Your task to perform on an android device: Clear all items from cart on walmart. Add "macbook air" to the cart on walmart Image 0: 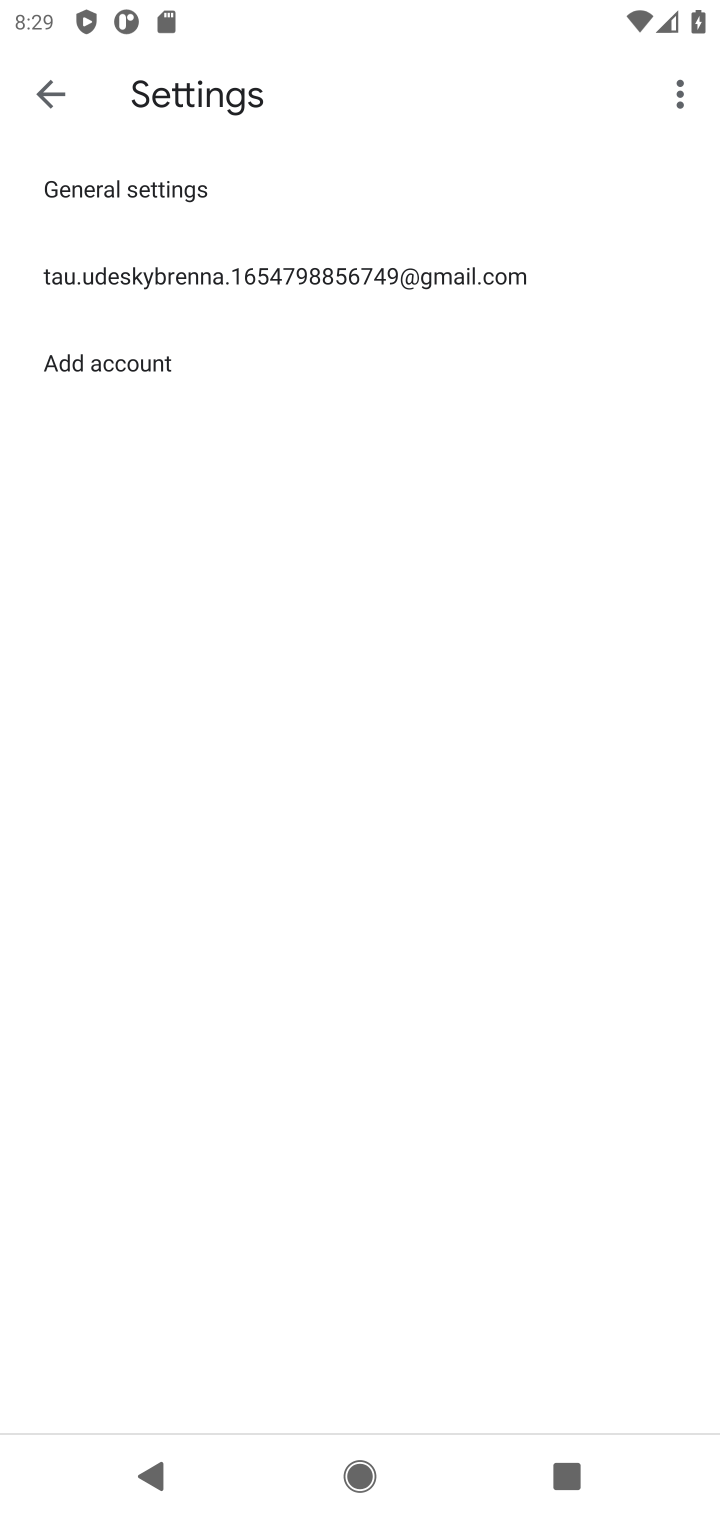
Step 0: press home button
Your task to perform on an android device: Clear all items from cart on walmart. Add "macbook air" to the cart on walmart Image 1: 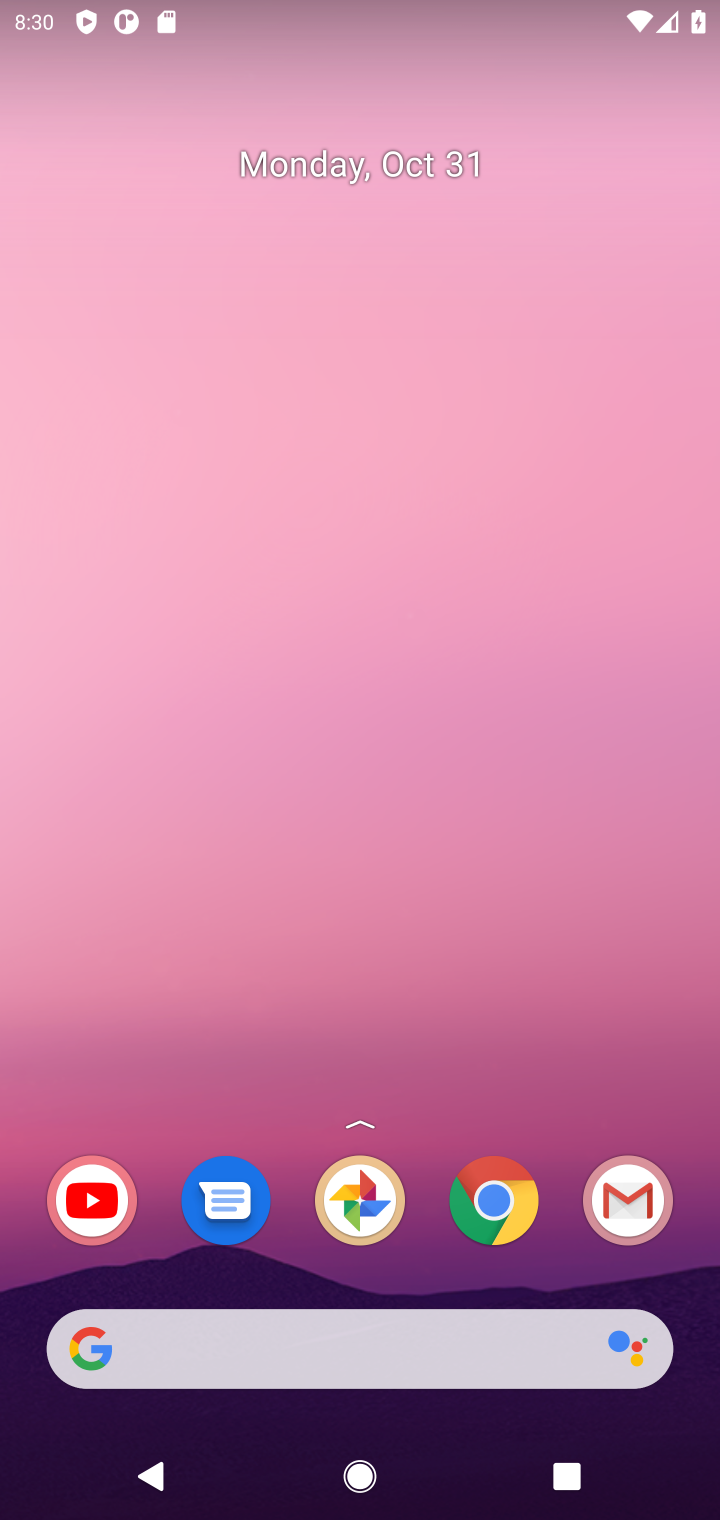
Step 1: click (484, 1201)
Your task to perform on an android device: Clear all items from cart on walmart. Add "macbook air" to the cart on walmart Image 2: 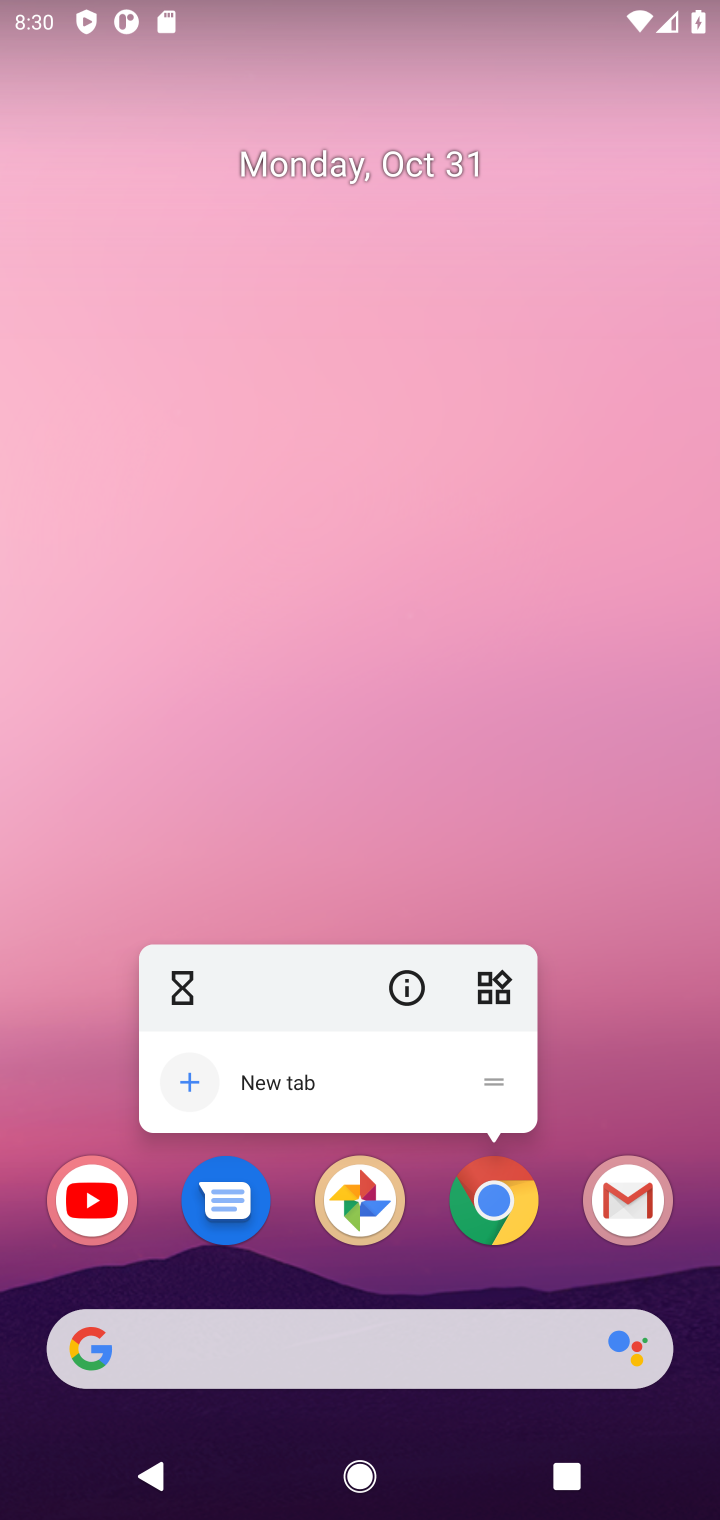
Step 2: click (616, 634)
Your task to perform on an android device: Clear all items from cart on walmart. Add "macbook air" to the cart on walmart Image 3: 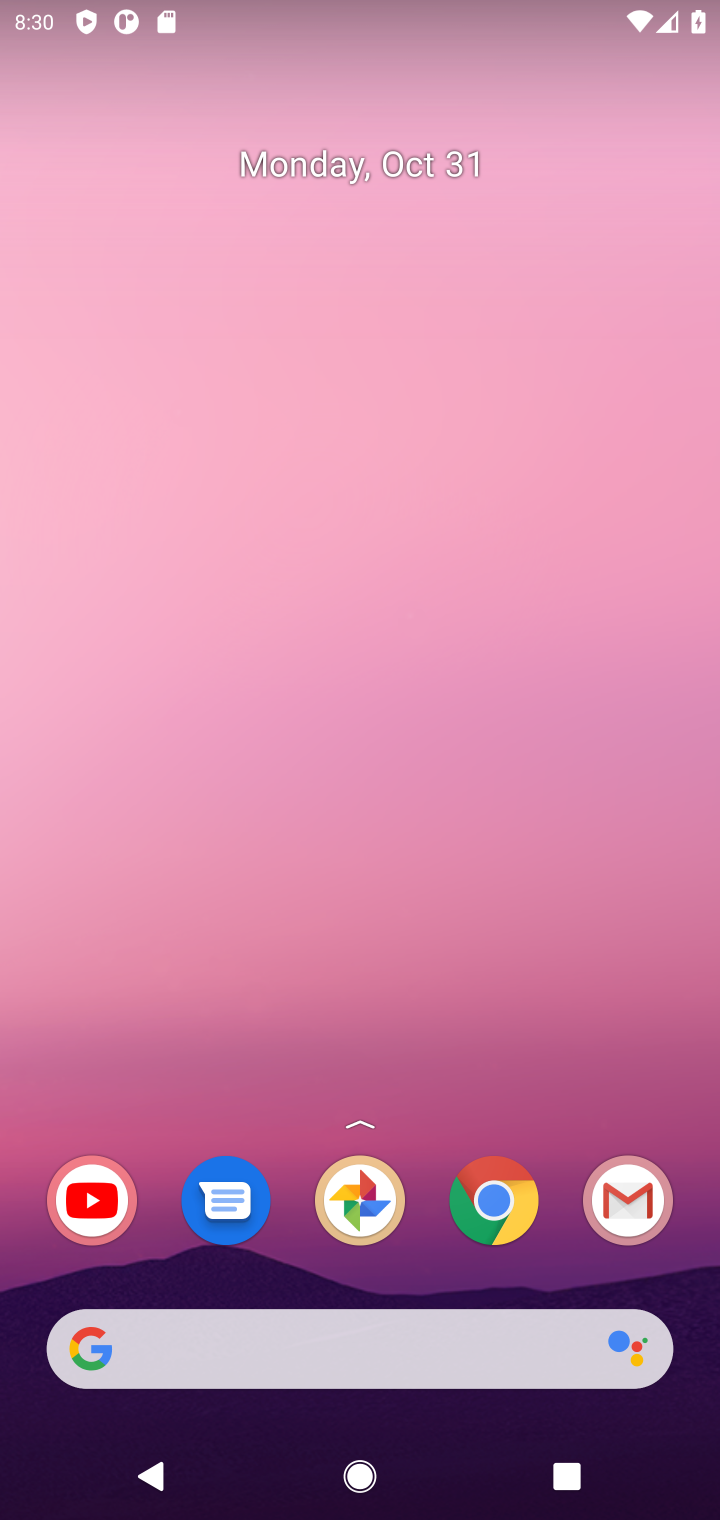
Step 3: click (494, 1193)
Your task to perform on an android device: Clear all items from cart on walmart. Add "macbook air" to the cart on walmart Image 4: 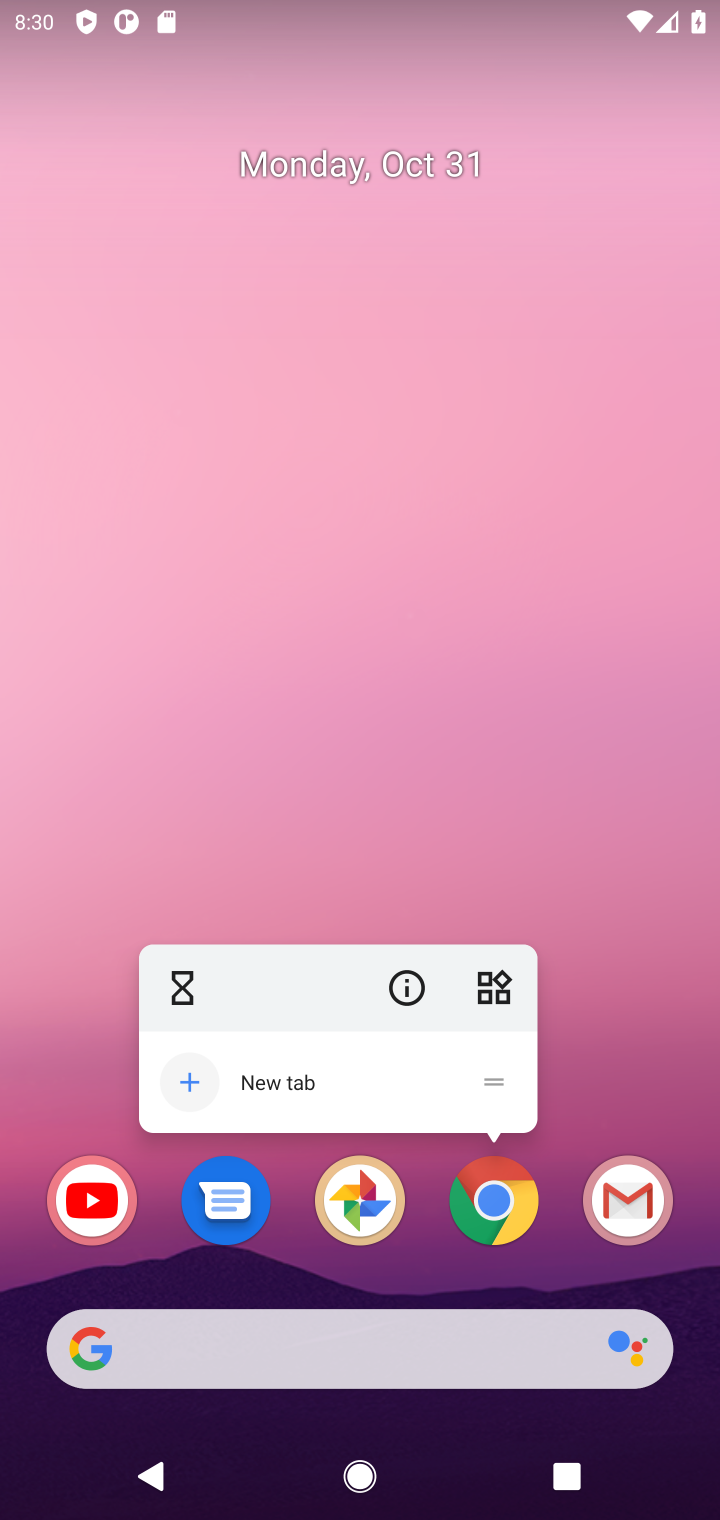
Step 4: click (577, 713)
Your task to perform on an android device: Clear all items from cart on walmart. Add "macbook air" to the cart on walmart Image 5: 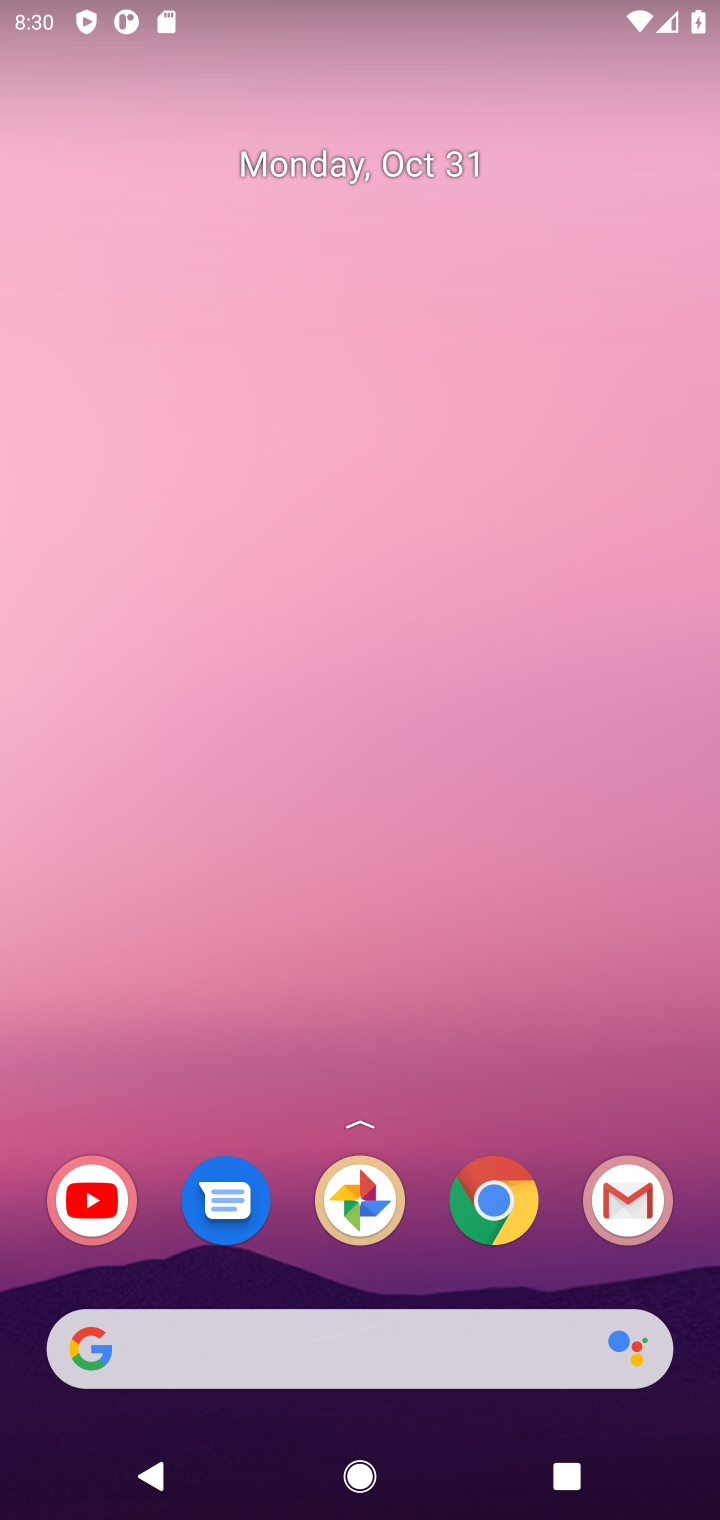
Step 5: click (90, 1343)
Your task to perform on an android device: Clear all items from cart on walmart. Add "macbook air" to the cart on walmart Image 6: 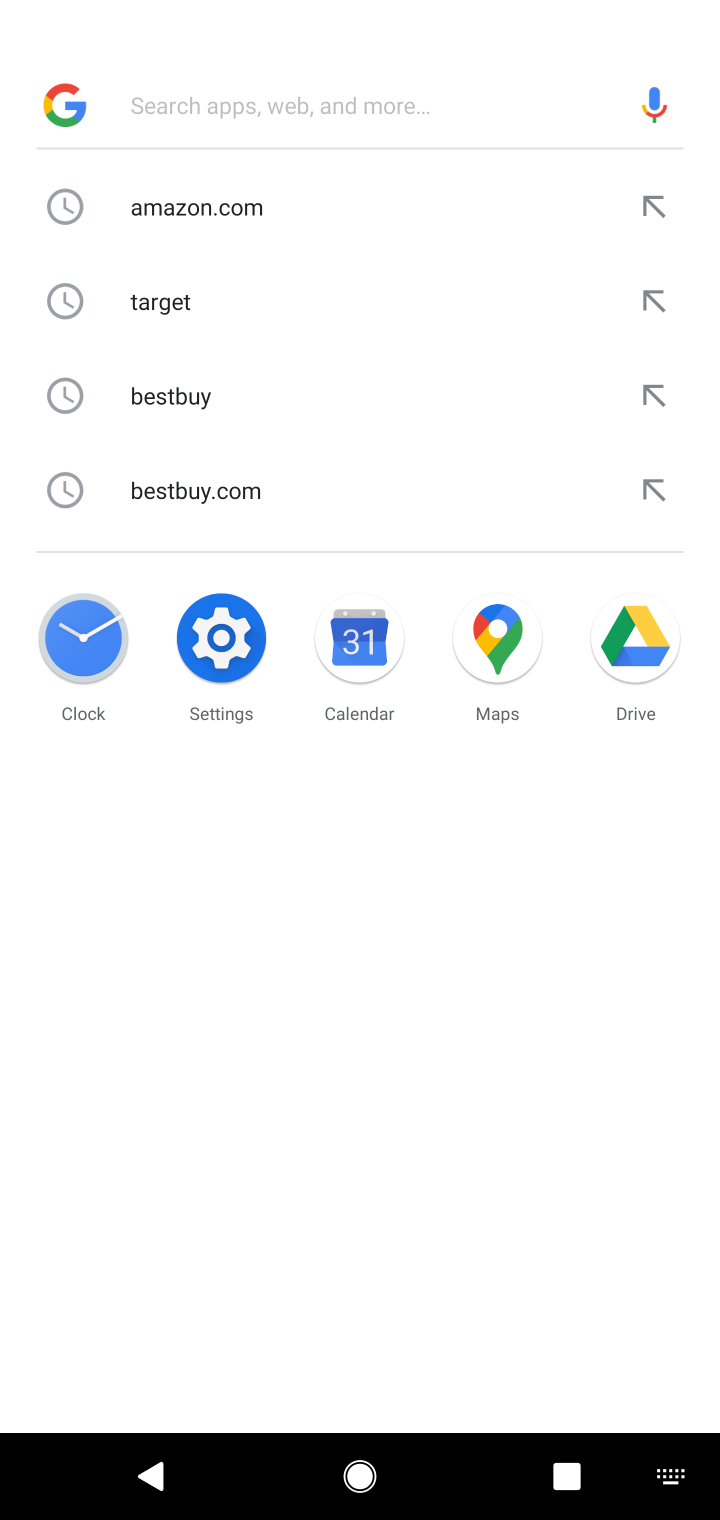
Step 6: type "walmart"
Your task to perform on an android device: Clear all items from cart on walmart. Add "macbook air" to the cart on walmart Image 7: 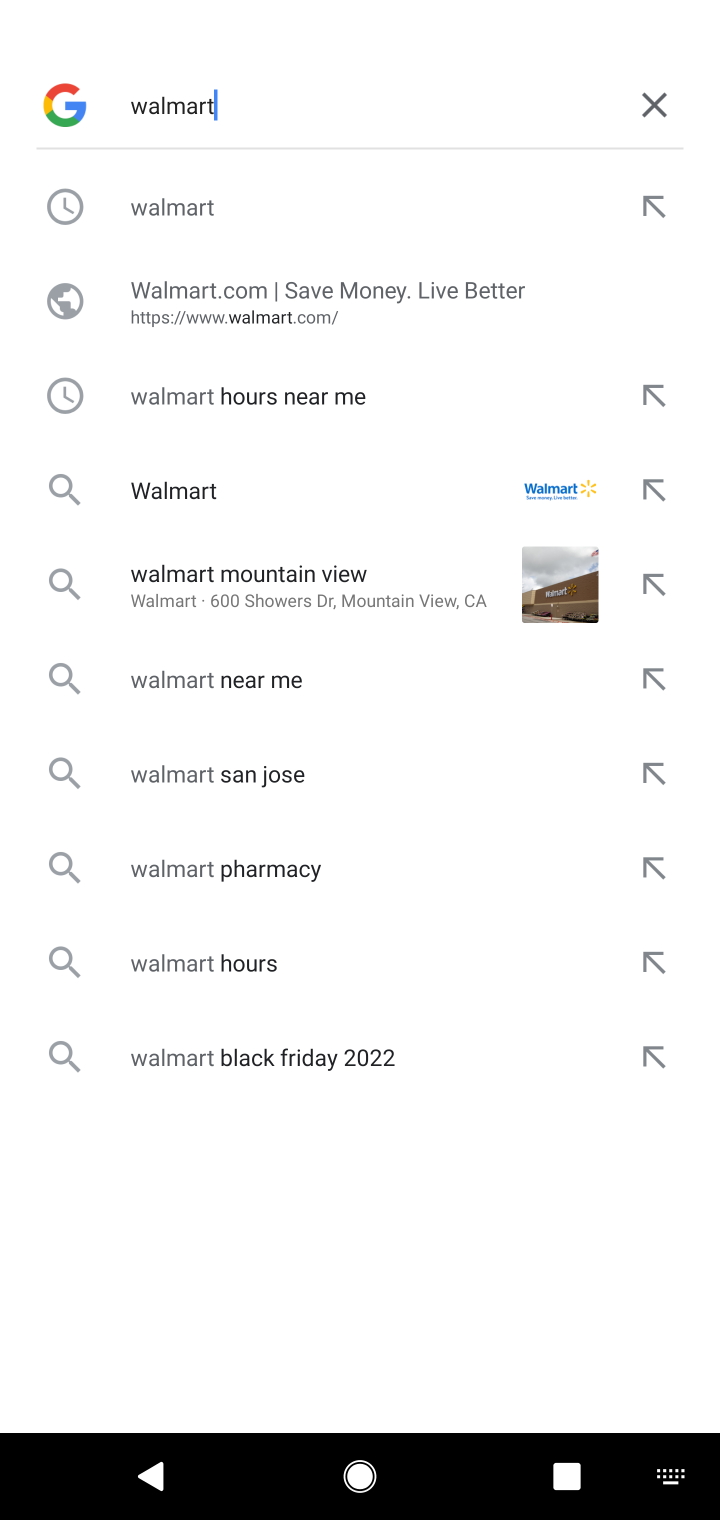
Step 7: click (275, 206)
Your task to perform on an android device: Clear all items from cart on walmart. Add "macbook air" to the cart on walmart Image 8: 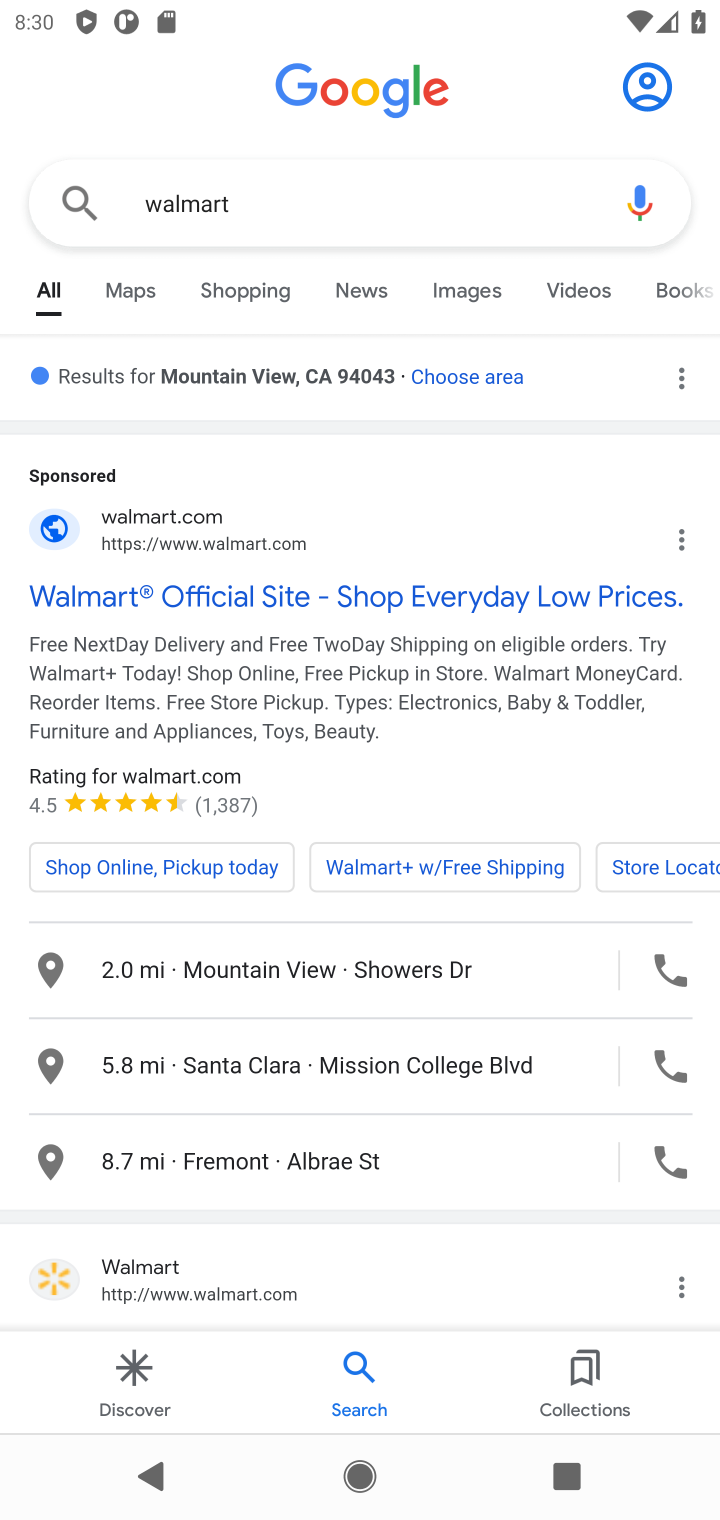
Step 8: click (203, 596)
Your task to perform on an android device: Clear all items from cart on walmart. Add "macbook air" to the cart on walmart Image 9: 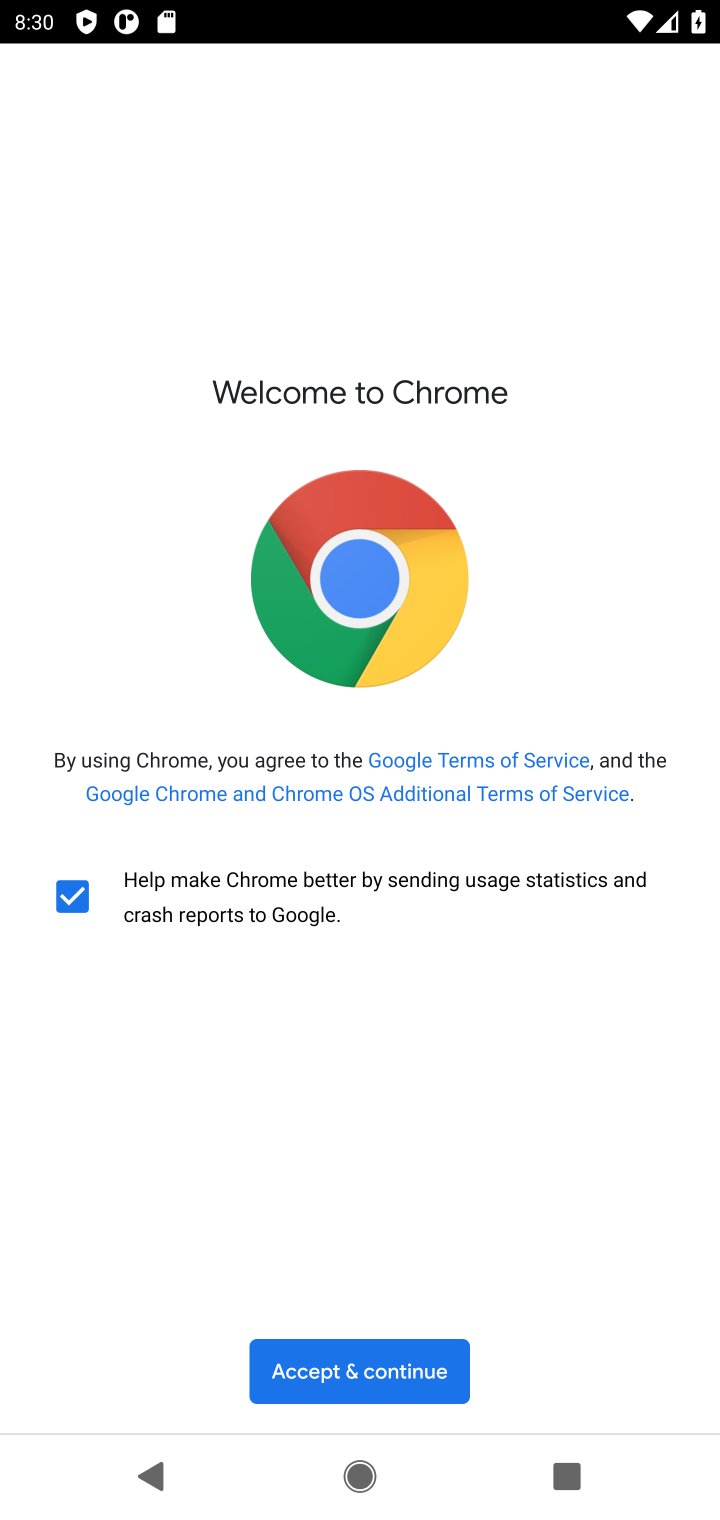
Step 9: click (362, 1372)
Your task to perform on an android device: Clear all items from cart on walmart. Add "macbook air" to the cart on walmart Image 10: 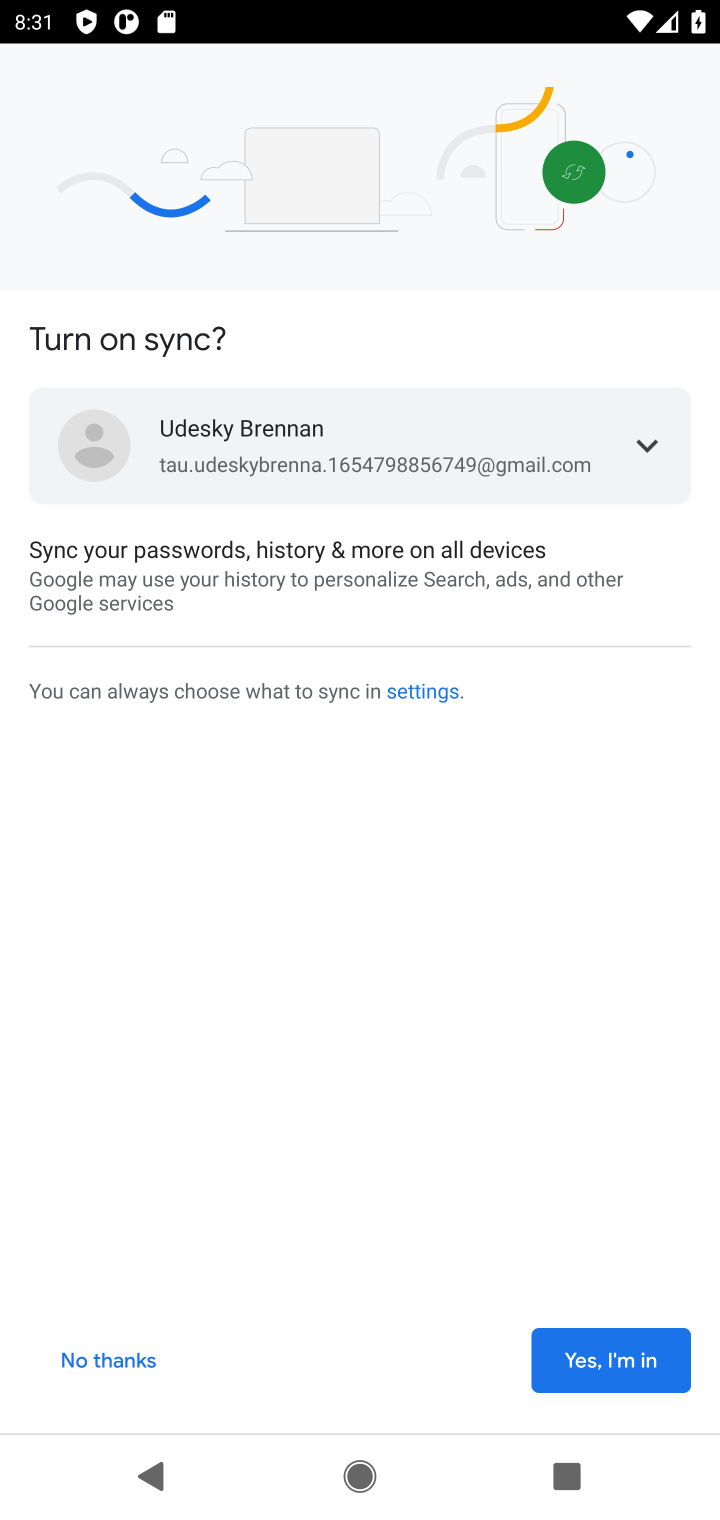
Step 10: click (644, 1347)
Your task to perform on an android device: Clear all items from cart on walmart. Add "macbook air" to the cart on walmart Image 11: 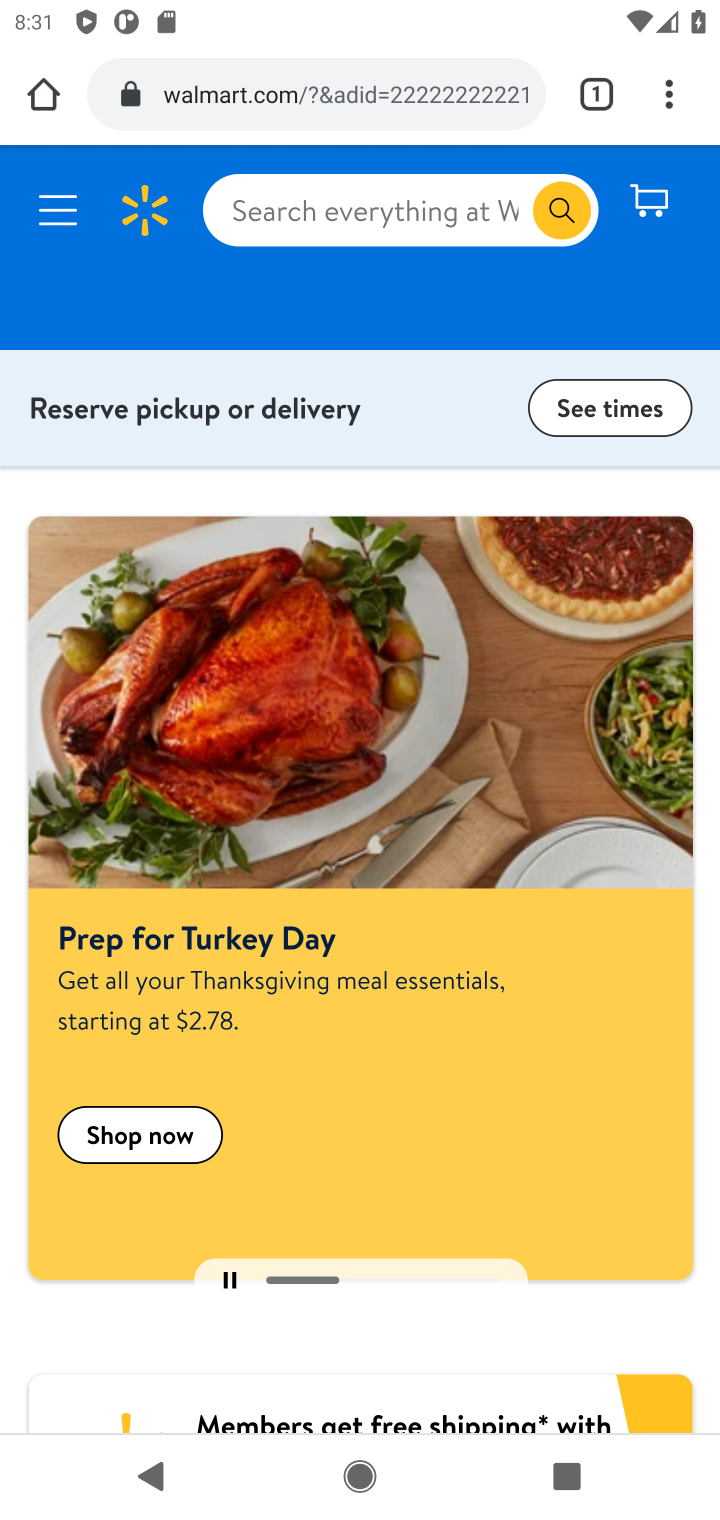
Step 11: click (653, 216)
Your task to perform on an android device: Clear all items from cart on walmart. Add "macbook air" to the cart on walmart Image 12: 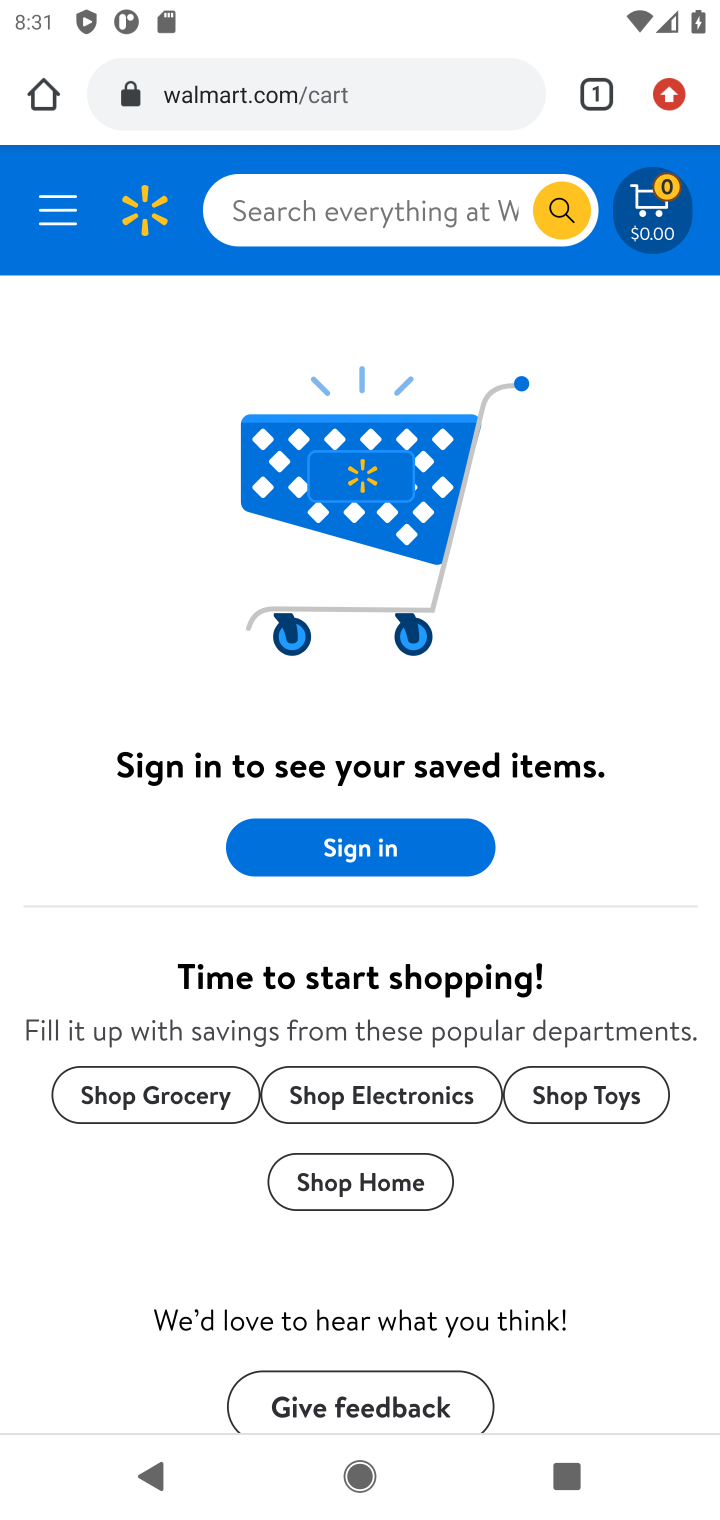
Step 12: click (316, 221)
Your task to perform on an android device: Clear all items from cart on walmart. Add "macbook air" to the cart on walmart Image 13: 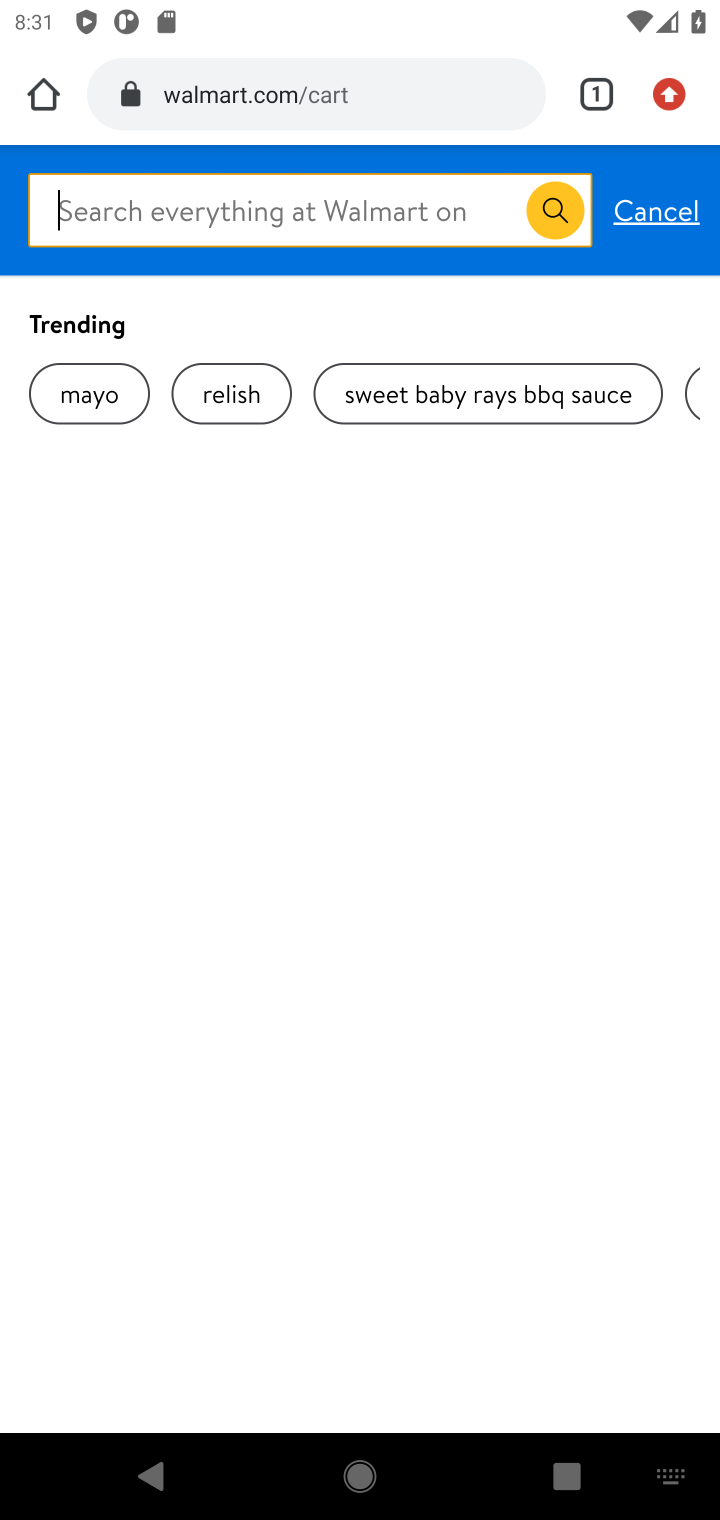
Step 13: type "macbook air"
Your task to perform on an android device: Clear all items from cart on walmart. Add "macbook air" to the cart on walmart Image 14: 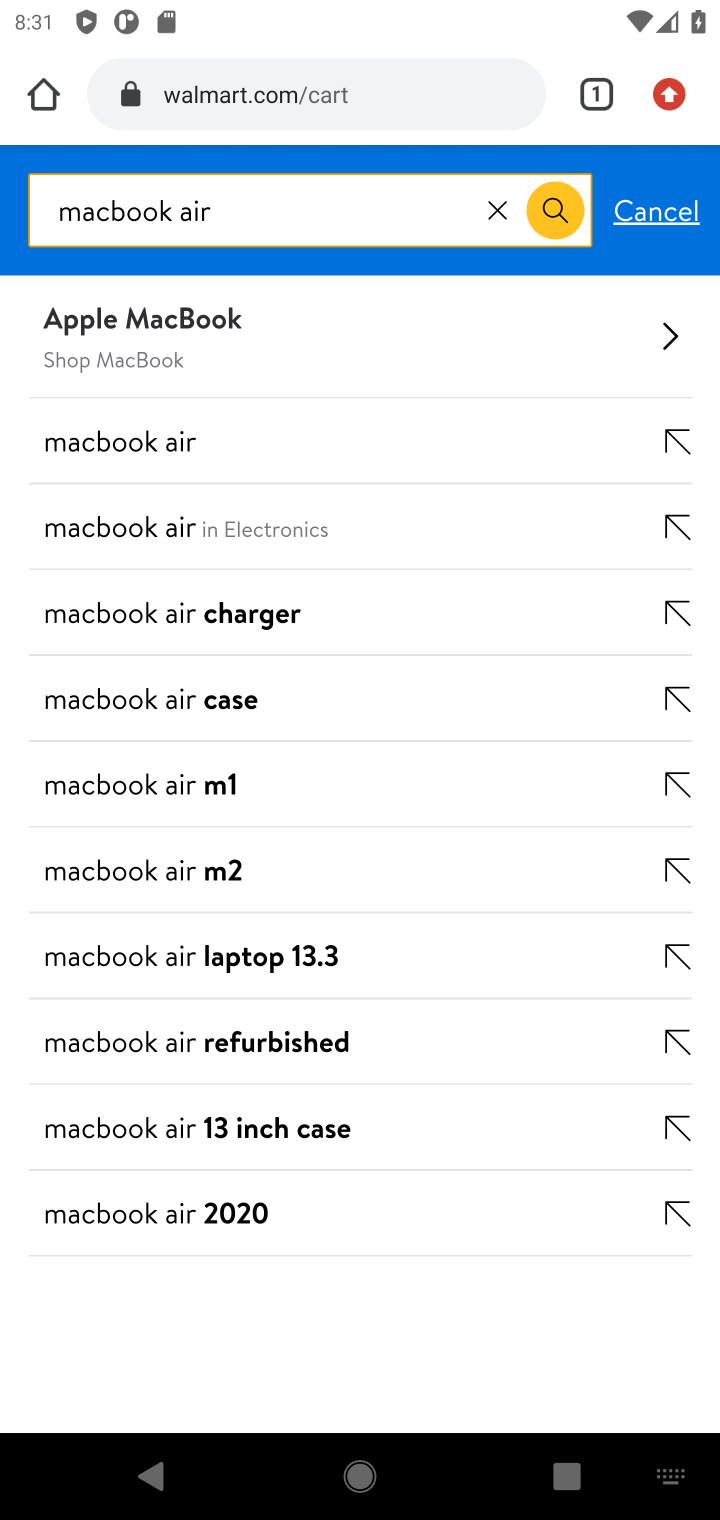
Step 14: click (143, 444)
Your task to perform on an android device: Clear all items from cart on walmart. Add "macbook air" to the cart on walmart Image 15: 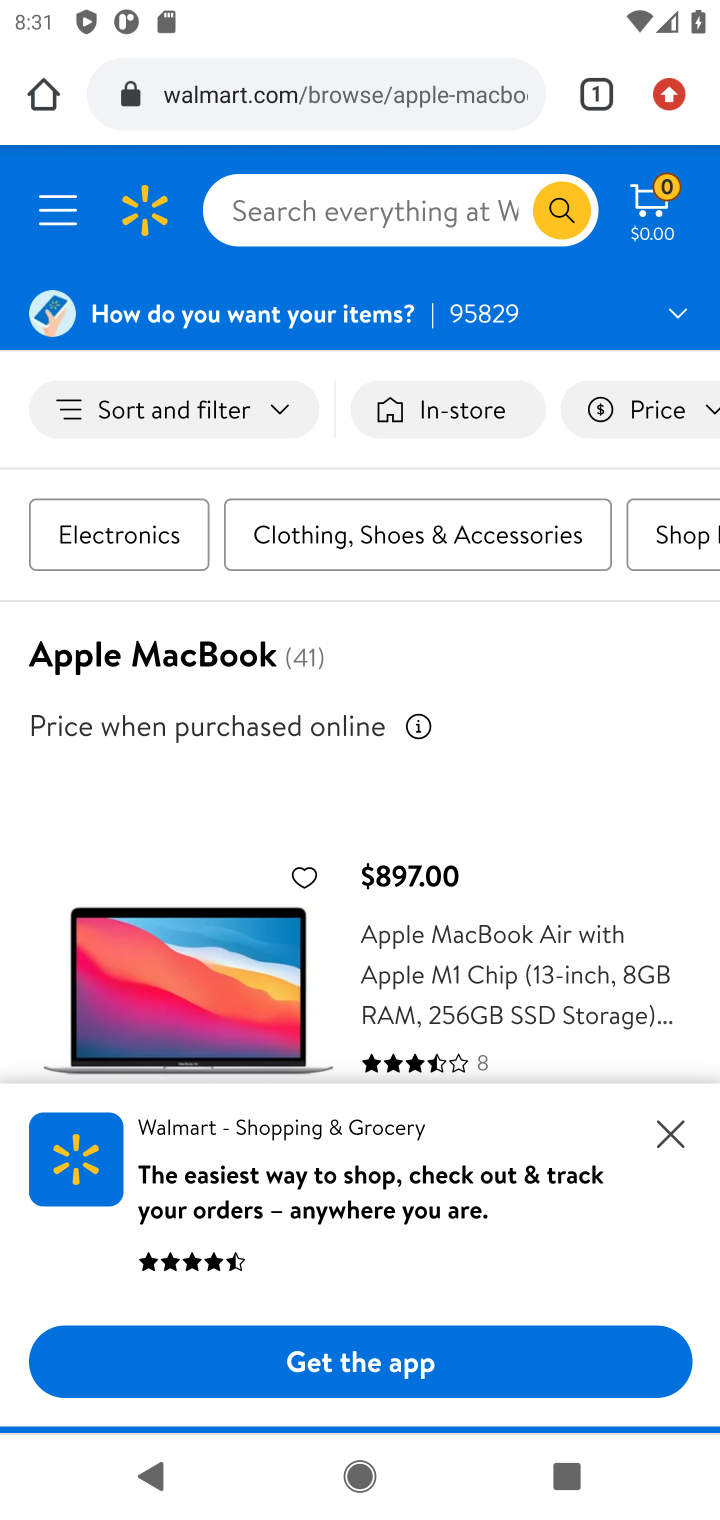
Step 15: click (669, 1134)
Your task to perform on an android device: Clear all items from cart on walmart. Add "macbook air" to the cart on walmart Image 16: 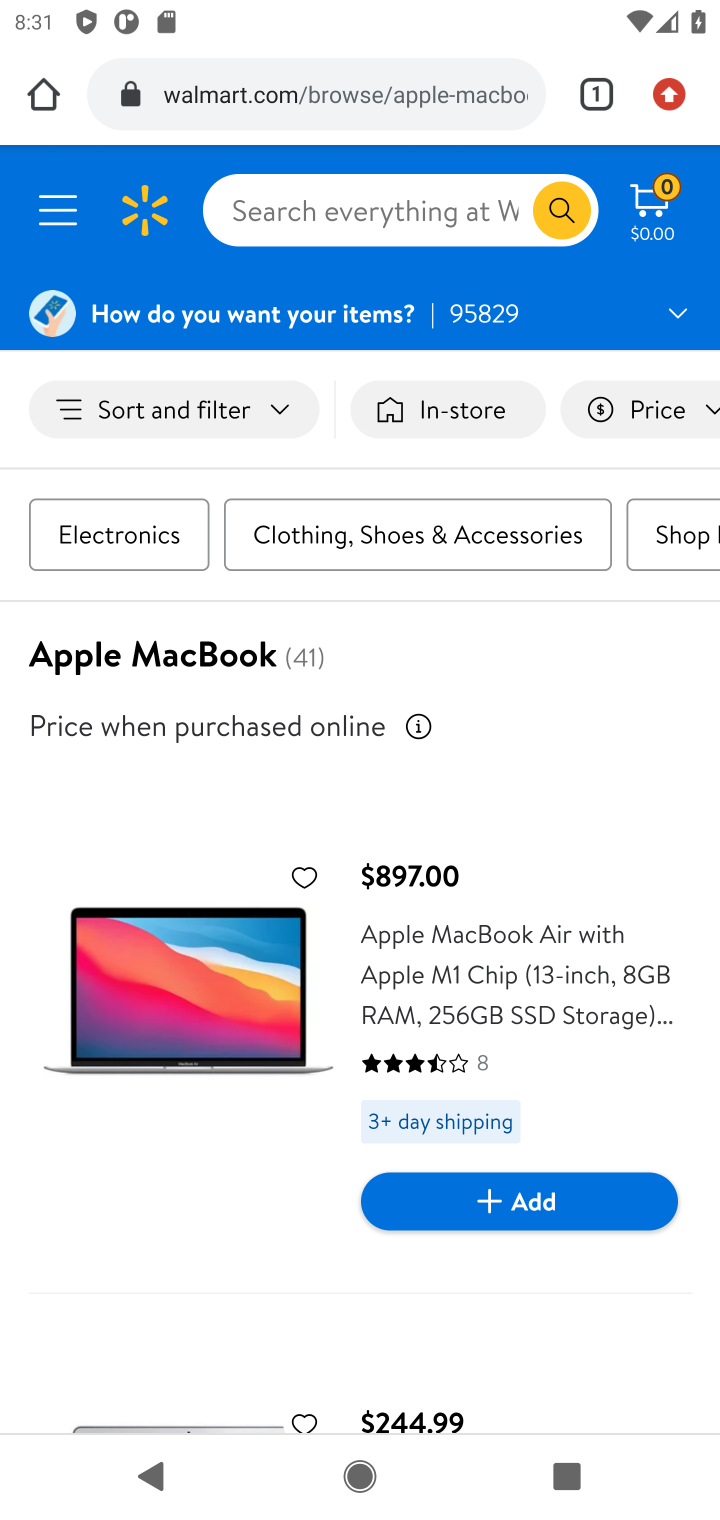
Step 16: click (188, 1000)
Your task to perform on an android device: Clear all items from cart on walmart. Add "macbook air" to the cart on walmart Image 17: 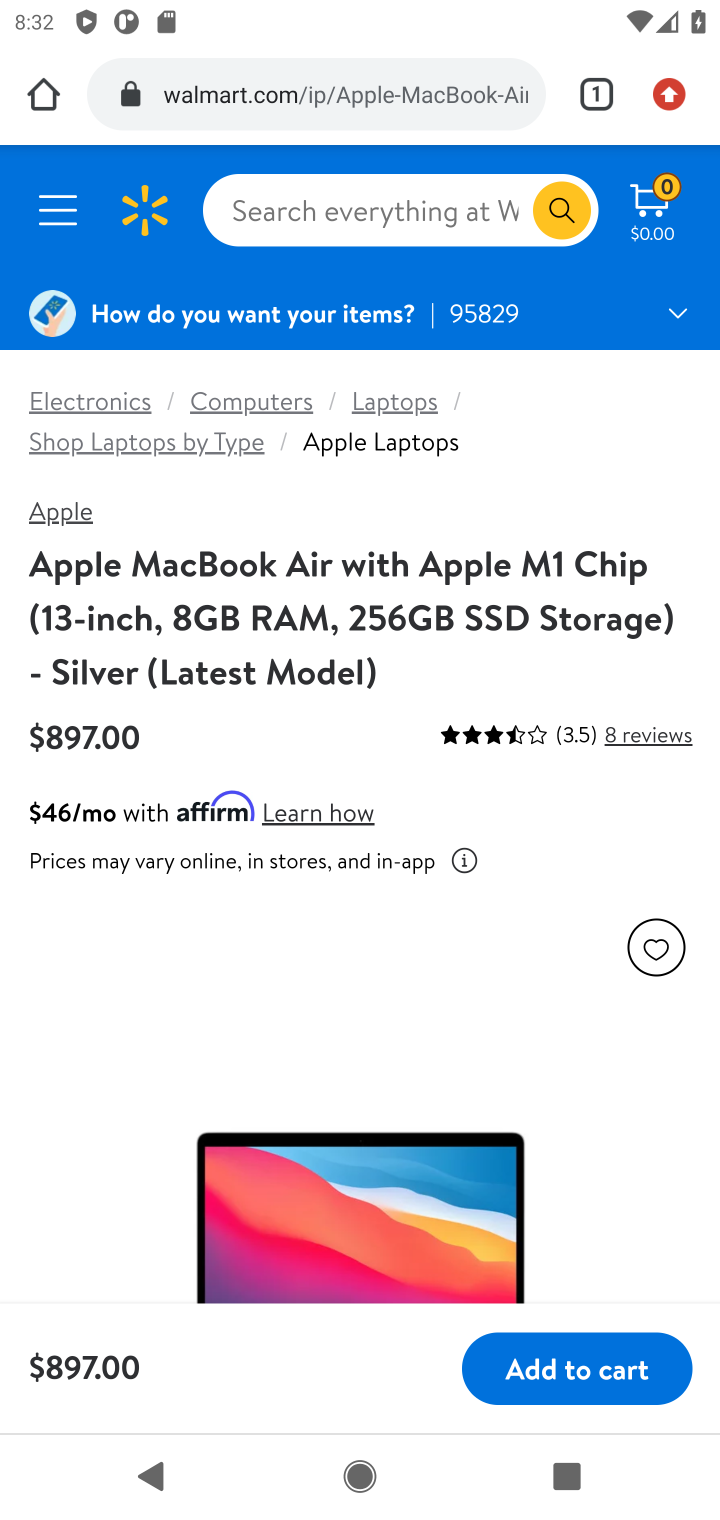
Step 17: click (568, 1377)
Your task to perform on an android device: Clear all items from cart on walmart. Add "macbook air" to the cart on walmart Image 18: 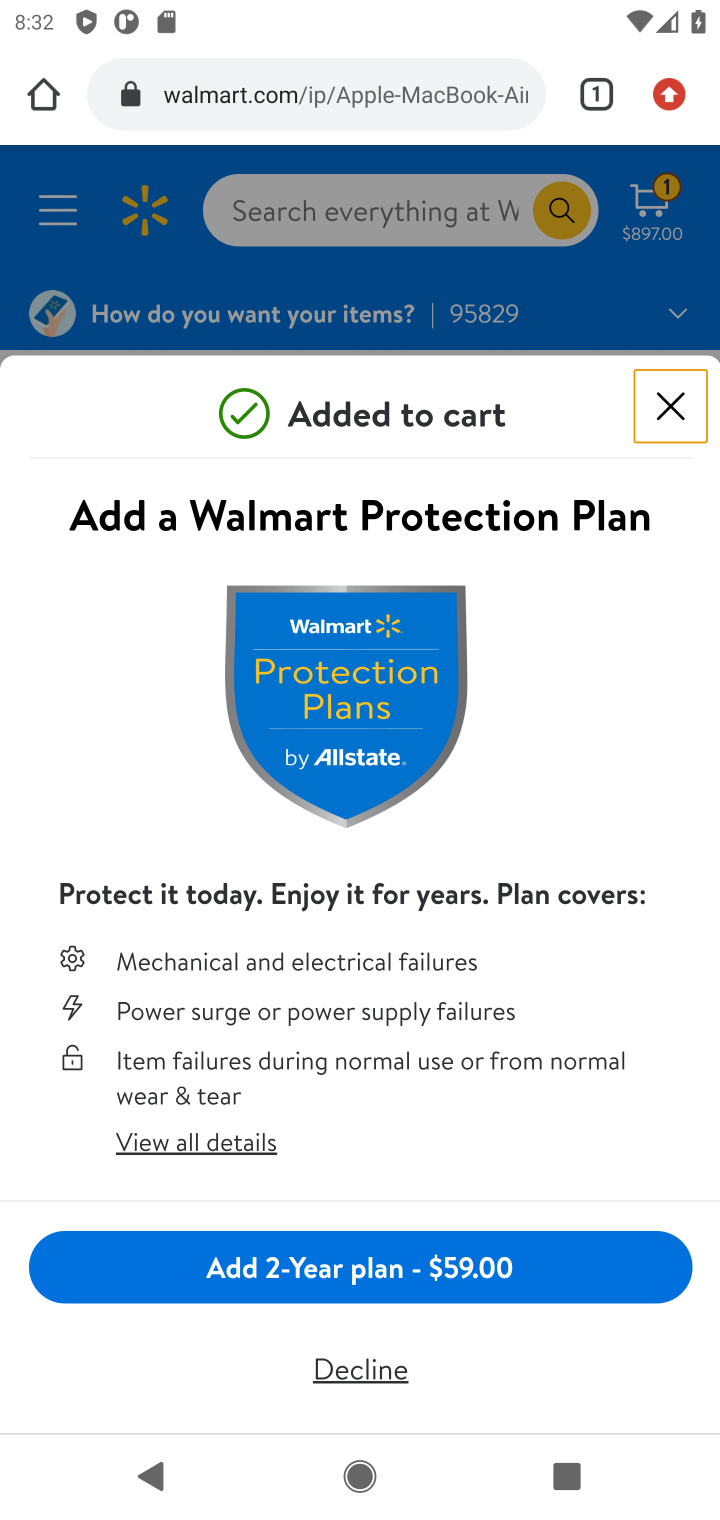
Step 18: click (678, 406)
Your task to perform on an android device: Clear all items from cart on walmart. Add "macbook air" to the cart on walmart Image 19: 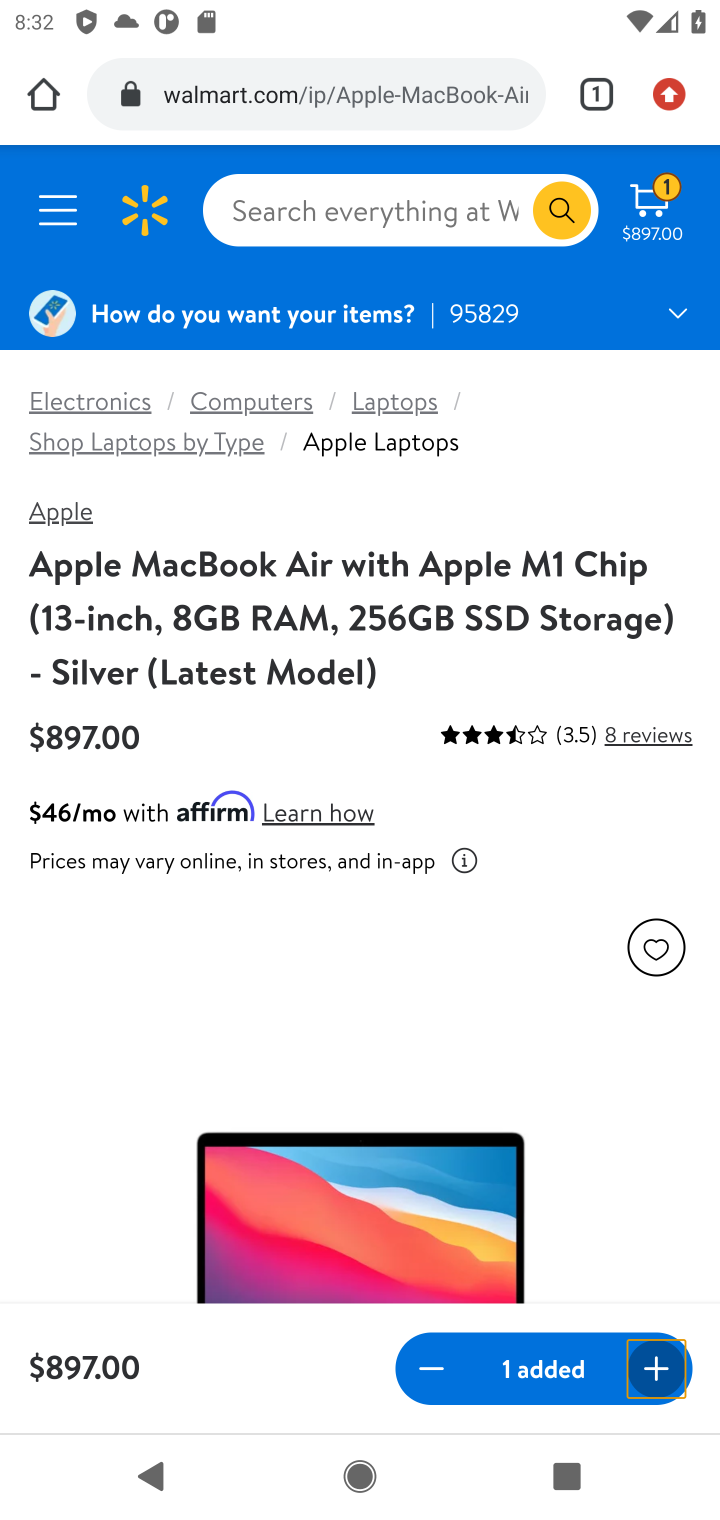
Step 19: task complete